Your task to perform on an android device: open app "DoorDash - Food Delivery" Image 0: 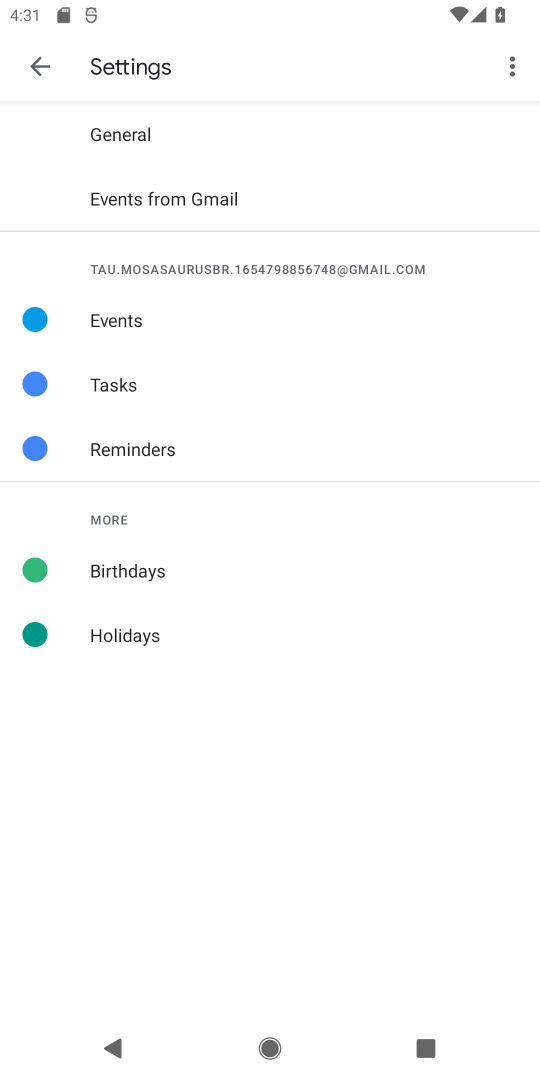
Step 0: press home button
Your task to perform on an android device: open app "DoorDash - Food Delivery" Image 1: 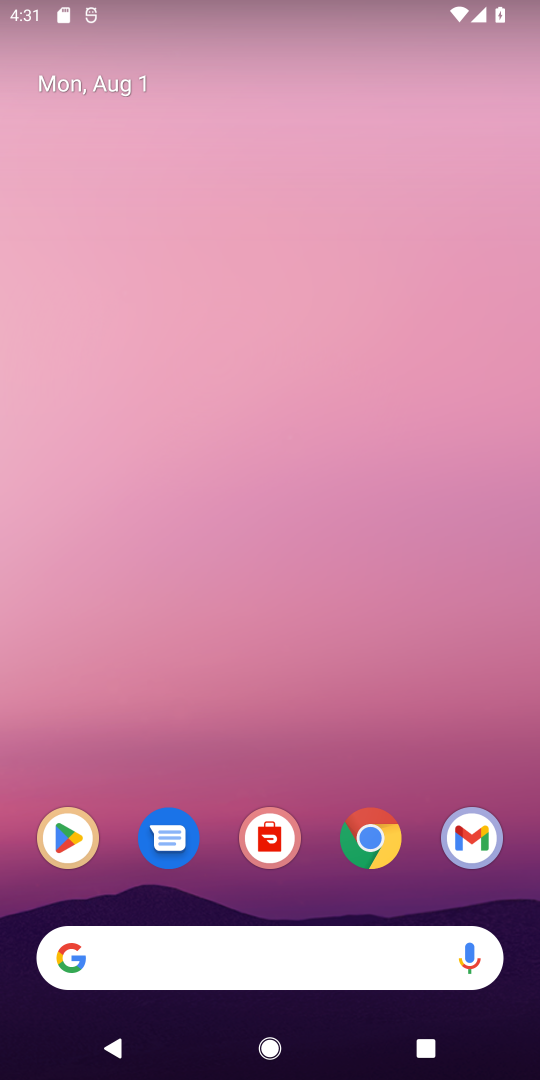
Step 1: click (69, 830)
Your task to perform on an android device: open app "DoorDash - Food Delivery" Image 2: 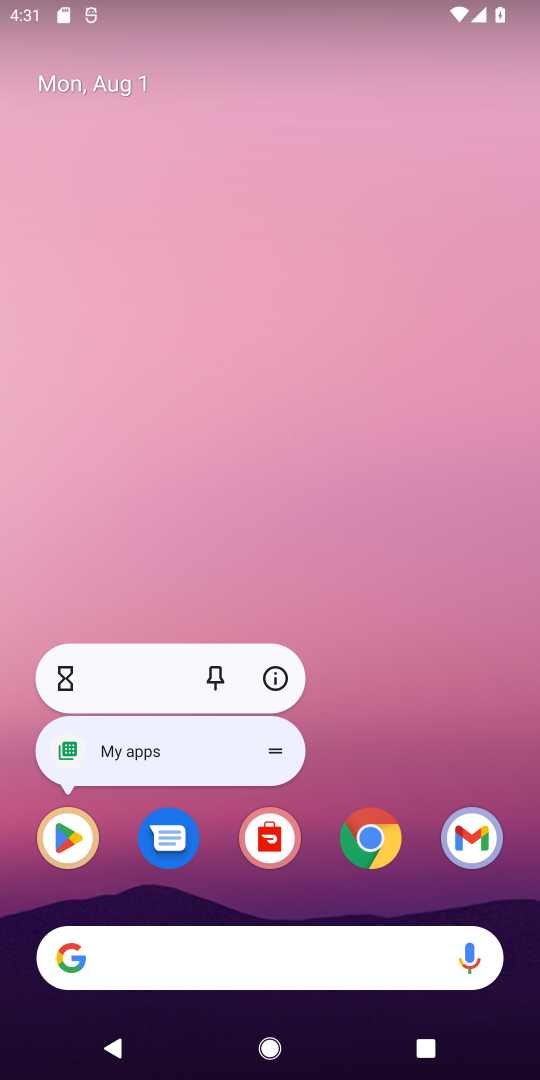
Step 2: click (55, 835)
Your task to perform on an android device: open app "DoorDash - Food Delivery" Image 3: 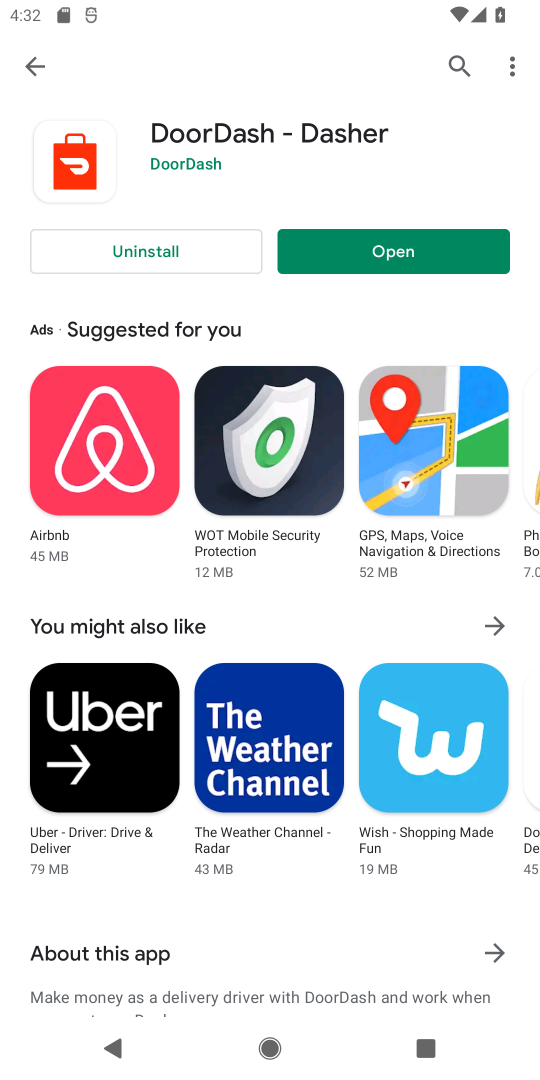
Step 3: click (466, 70)
Your task to perform on an android device: open app "DoorDash - Food Delivery" Image 4: 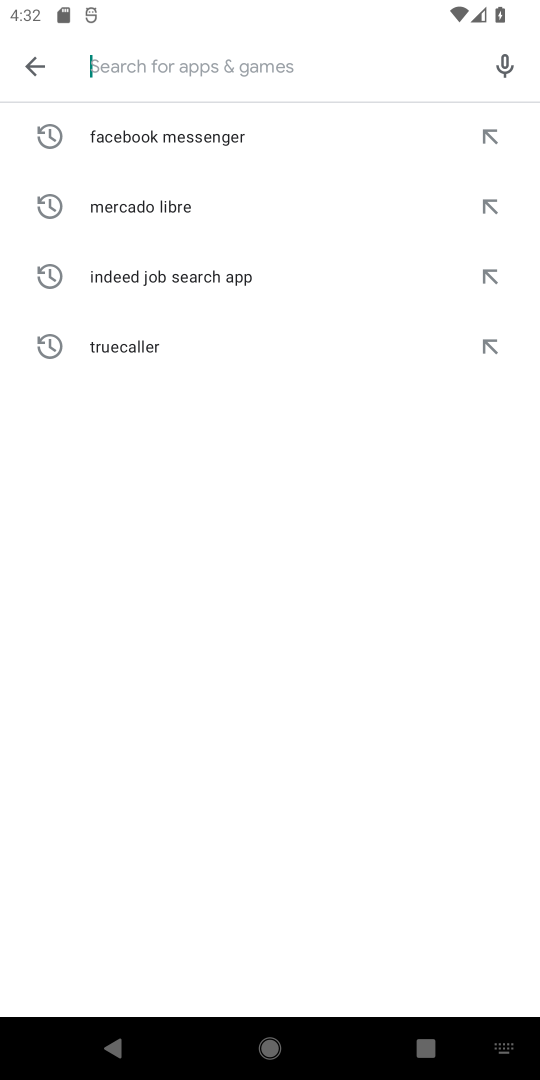
Step 4: click (35, 65)
Your task to perform on an android device: open app "DoorDash - Food Delivery" Image 5: 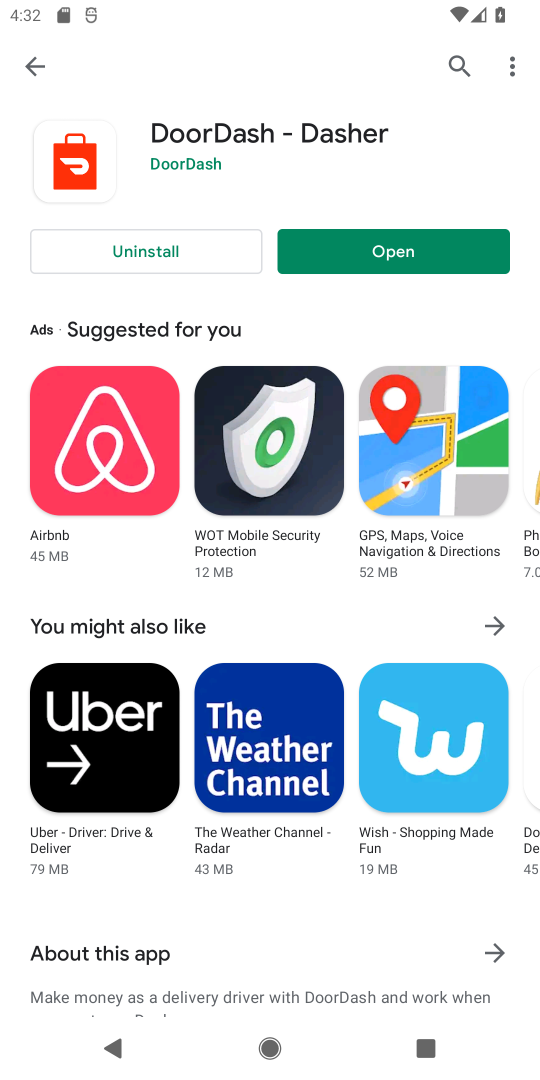
Step 5: click (432, 254)
Your task to perform on an android device: open app "DoorDash - Food Delivery" Image 6: 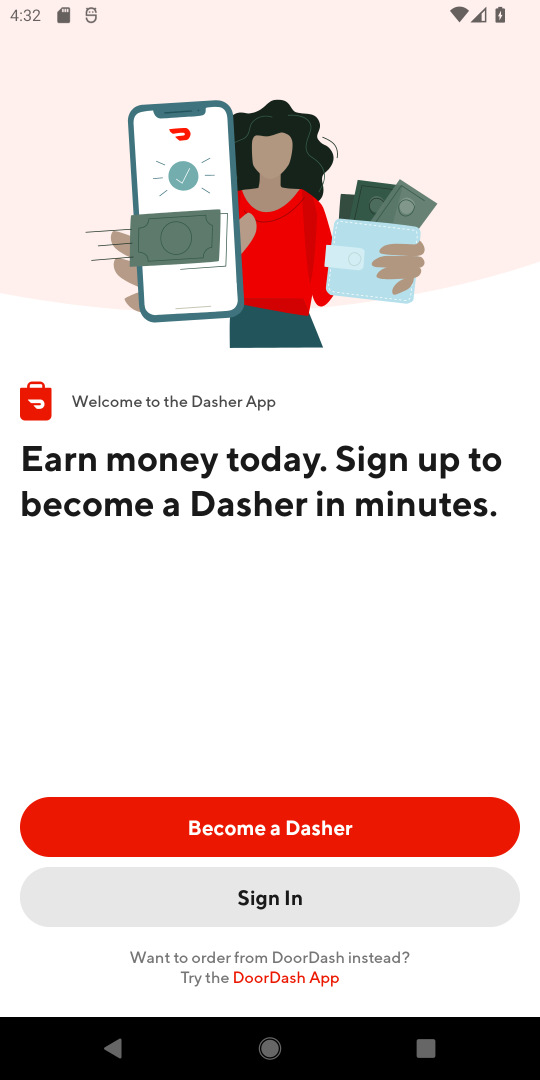
Step 6: task complete